Your task to perform on an android device: Open calendar and show me the fourth week of next month Image 0: 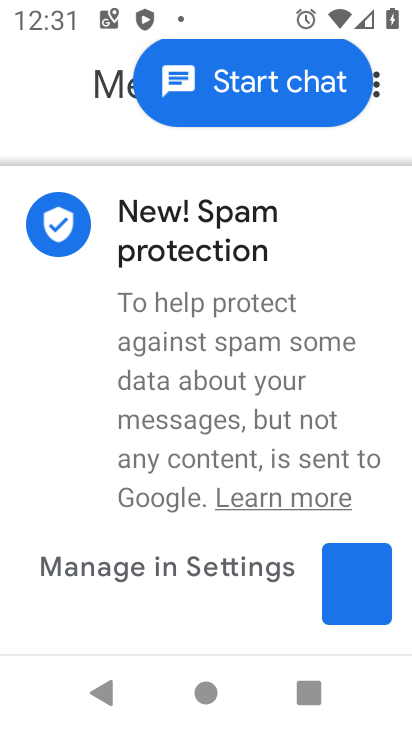
Step 0: press home button
Your task to perform on an android device: Open calendar and show me the fourth week of next month Image 1: 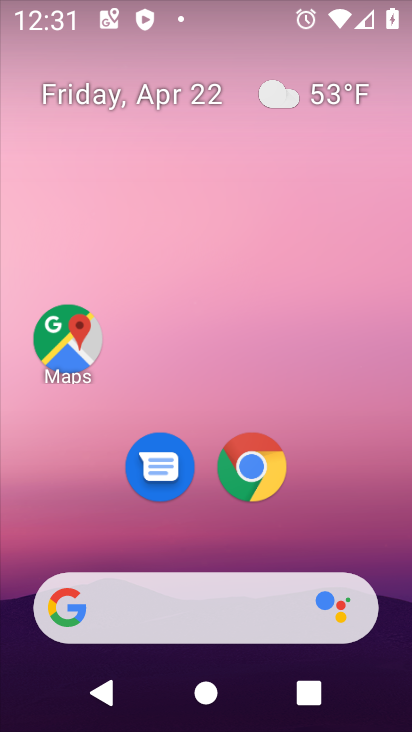
Step 1: drag from (383, 584) to (330, 127)
Your task to perform on an android device: Open calendar and show me the fourth week of next month Image 2: 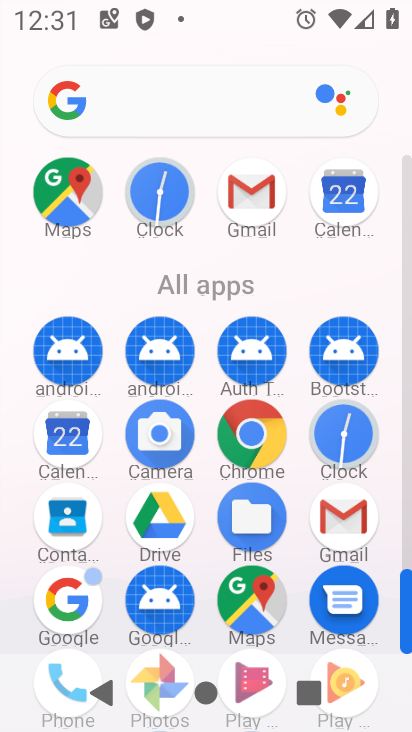
Step 2: click (62, 436)
Your task to perform on an android device: Open calendar and show me the fourth week of next month Image 3: 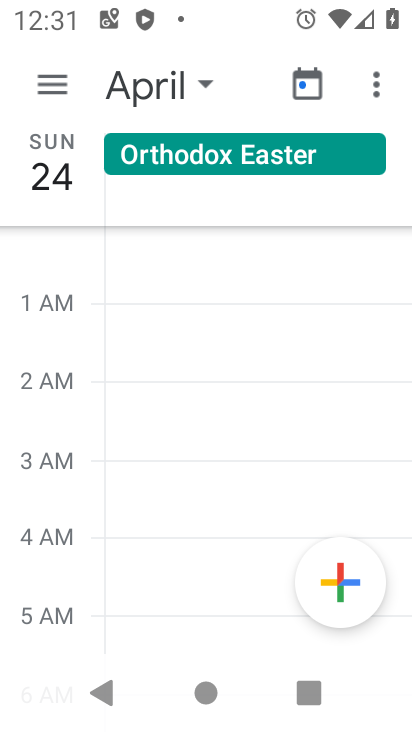
Step 3: click (52, 79)
Your task to perform on an android device: Open calendar and show me the fourth week of next month Image 4: 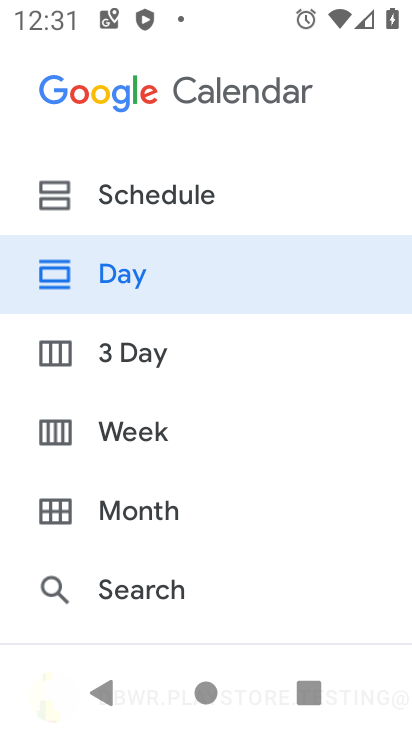
Step 4: click (129, 433)
Your task to perform on an android device: Open calendar and show me the fourth week of next month Image 5: 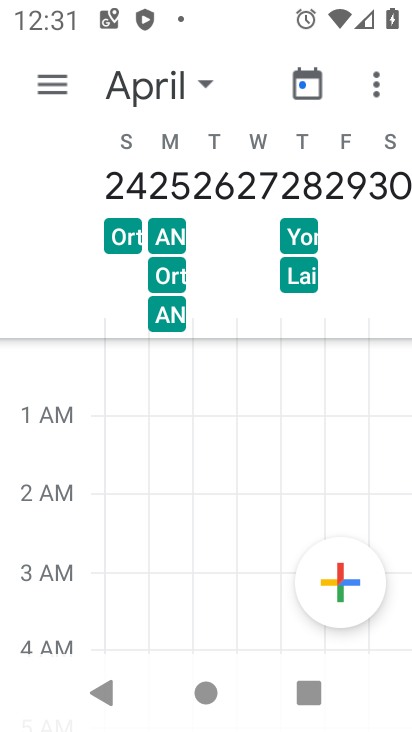
Step 5: click (207, 82)
Your task to perform on an android device: Open calendar and show me the fourth week of next month Image 6: 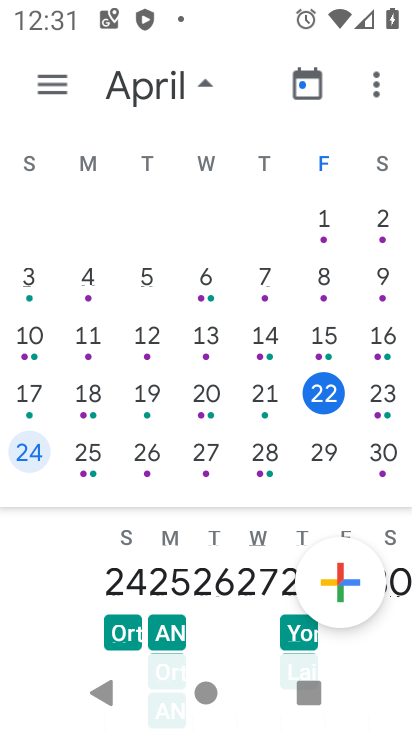
Step 6: drag from (375, 269) to (19, 288)
Your task to perform on an android device: Open calendar and show me the fourth week of next month Image 7: 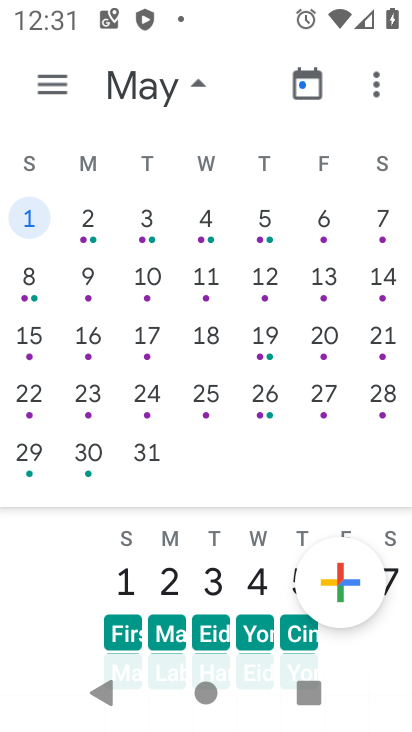
Step 7: click (32, 392)
Your task to perform on an android device: Open calendar and show me the fourth week of next month Image 8: 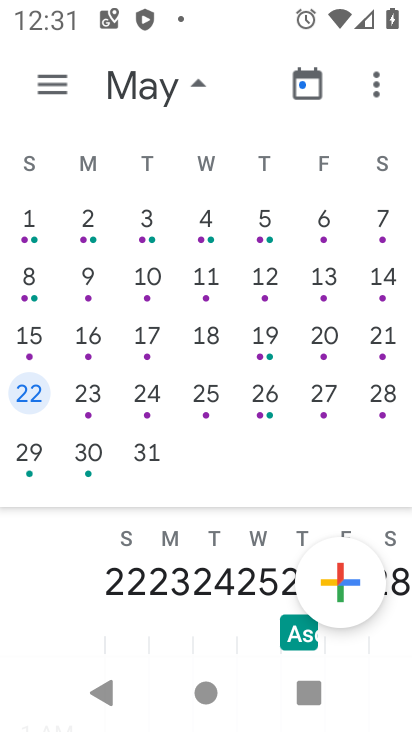
Step 8: task complete